Your task to perform on an android device: open a new tab in the chrome app Image 0: 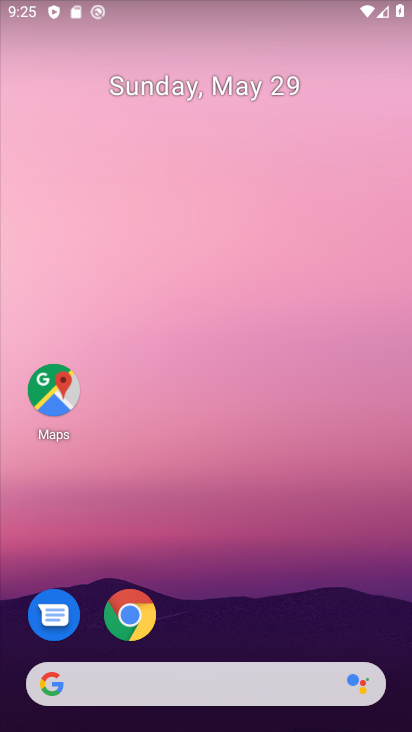
Step 0: drag from (197, 656) to (190, 26)
Your task to perform on an android device: open a new tab in the chrome app Image 1: 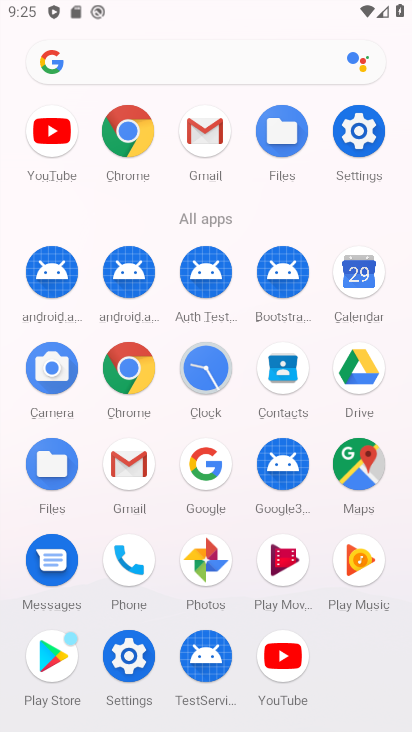
Step 1: click (125, 374)
Your task to perform on an android device: open a new tab in the chrome app Image 2: 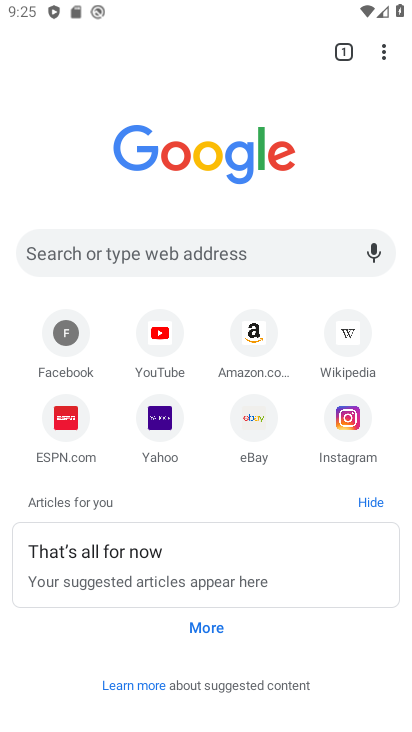
Step 2: click (349, 58)
Your task to perform on an android device: open a new tab in the chrome app Image 3: 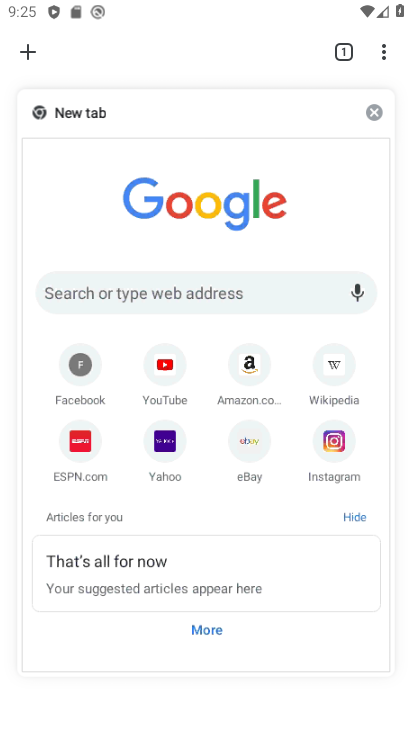
Step 3: click (35, 51)
Your task to perform on an android device: open a new tab in the chrome app Image 4: 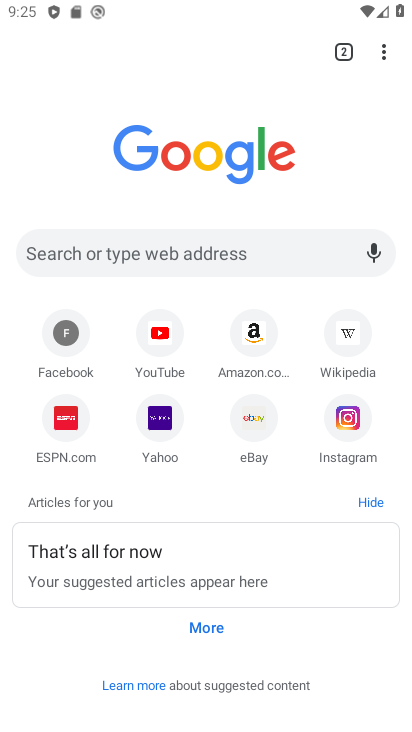
Step 4: task complete